Your task to perform on an android device: What's on my calendar today? Image 0: 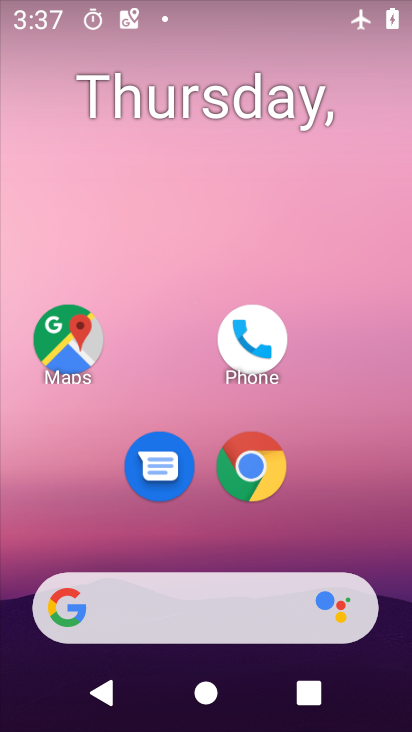
Step 0: drag from (213, 557) to (213, 70)
Your task to perform on an android device: What's on my calendar today? Image 1: 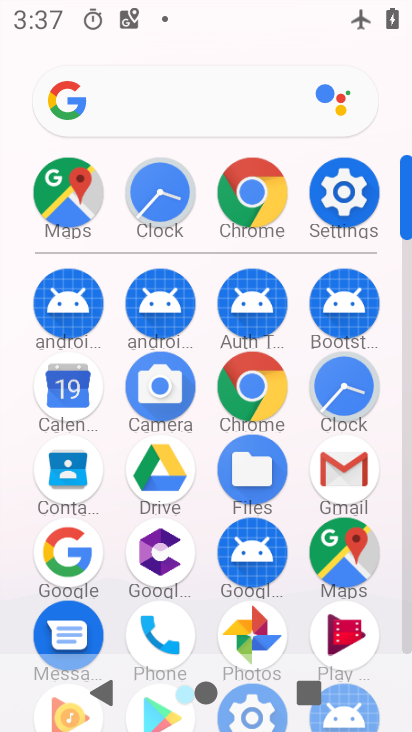
Step 1: click (67, 382)
Your task to perform on an android device: What's on my calendar today? Image 2: 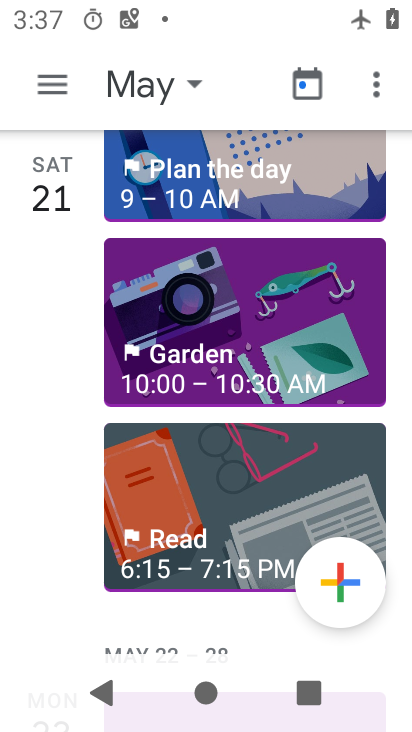
Step 2: click (188, 93)
Your task to perform on an android device: What's on my calendar today? Image 3: 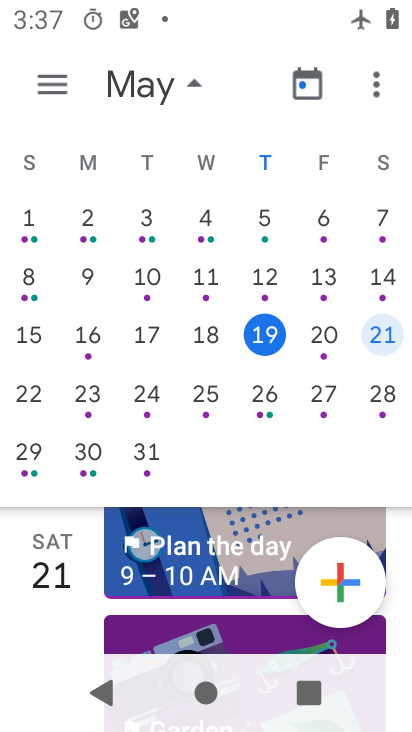
Step 3: click (272, 332)
Your task to perform on an android device: What's on my calendar today? Image 4: 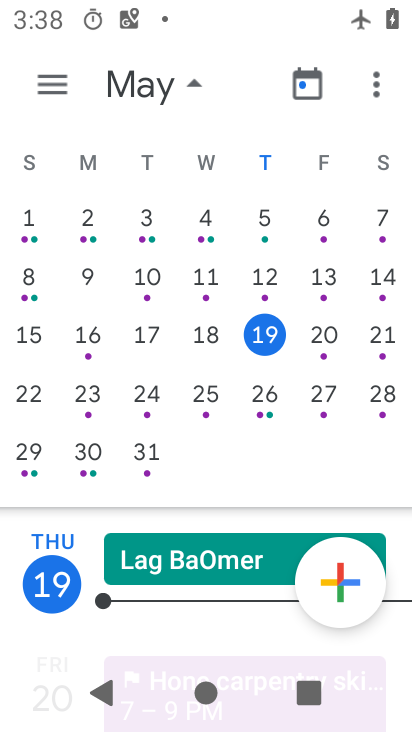
Step 4: task complete